Your task to perform on an android device: remove spam from my inbox in the gmail app Image 0: 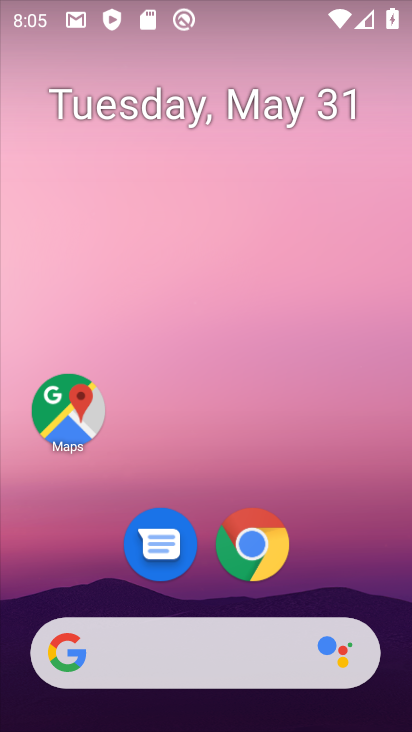
Step 0: drag from (194, 659) to (176, 166)
Your task to perform on an android device: remove spam from my inbox in the gmail app Image 1: 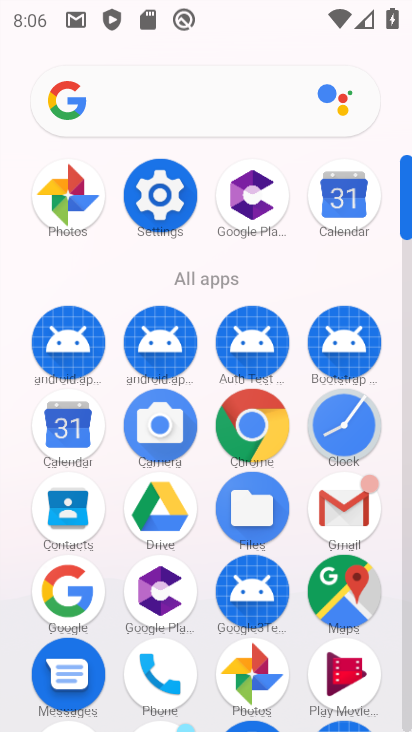
Step 1: click (340, 506)
Your task to perform on an android device: remove spam from my inbox in the gmail app Image 2: 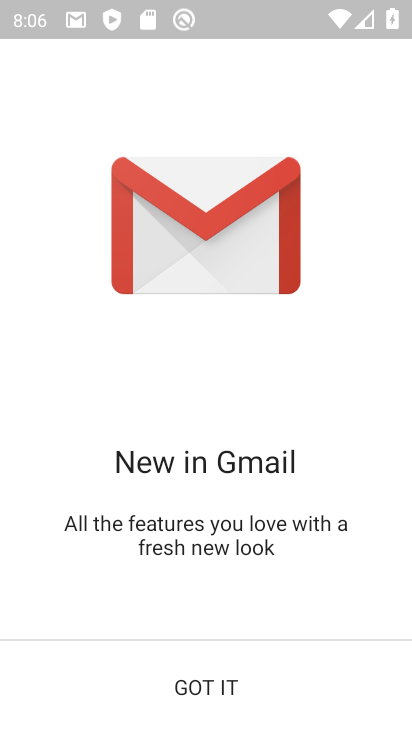
Step 2: click (171, 672)
Your task to perform on an android device: remove spam from my inbox in the gmail app Image 3: 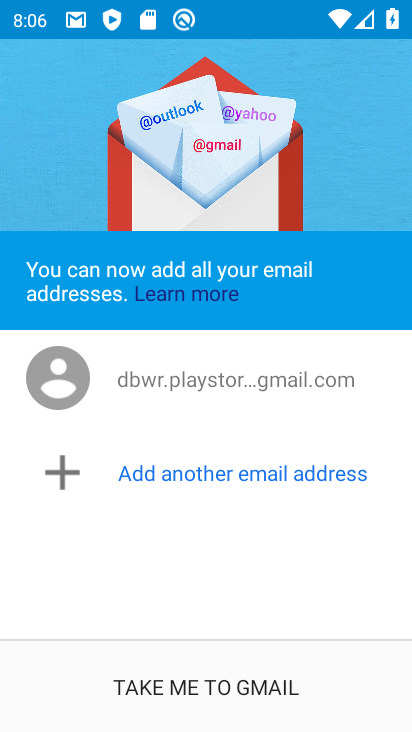
Step 3: click (171, 672)
Your task to perform on an android device: remove spam from my inbox in the gmail app Image 4: 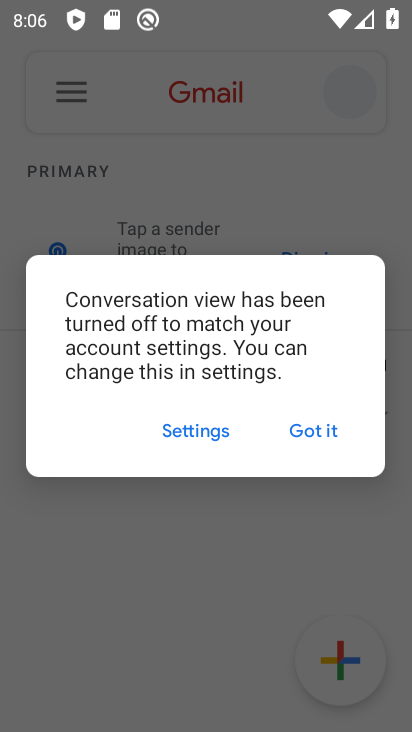
Step 4: click (306, 431)
Your task to perform on an android device: remove spam from my inbox in the gmail app Image 5: 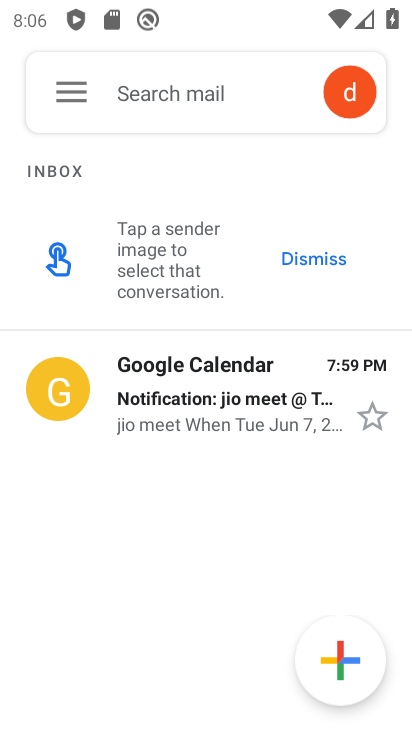
Step 5: click (70, 96)
Your task to perform on an android device: remove spam from my inbox in the gmail app Image 6: 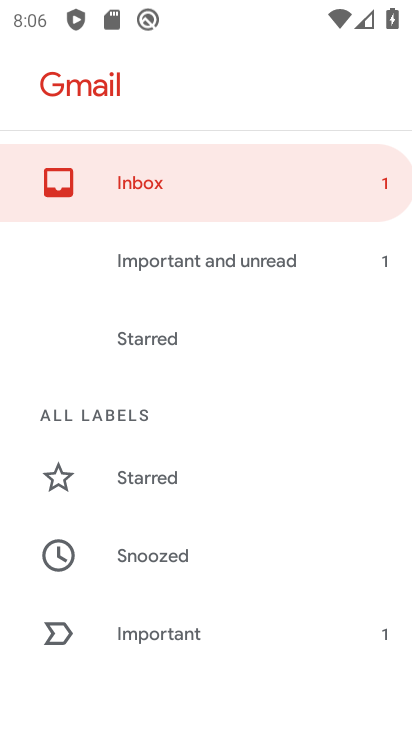
Step 6: drag from (182, 575) to (186, 15)
Your task to perform on an android device: remove spam from my inbox in the gmail app Image 7: 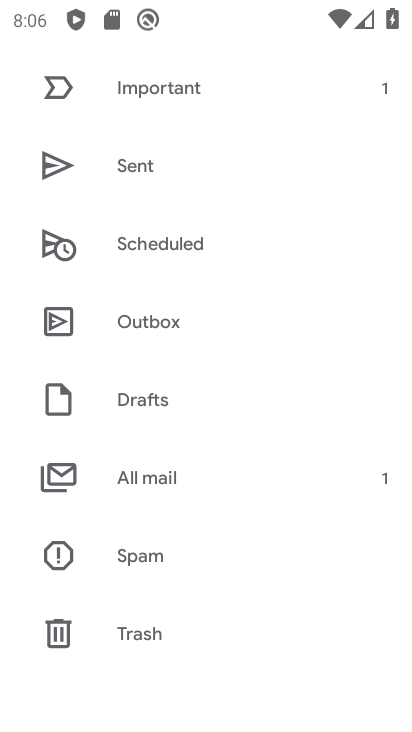
Step 7: click (131, 566)
Your task to perform on an android device: remove spam from my inbox in the gmail app Image 8: 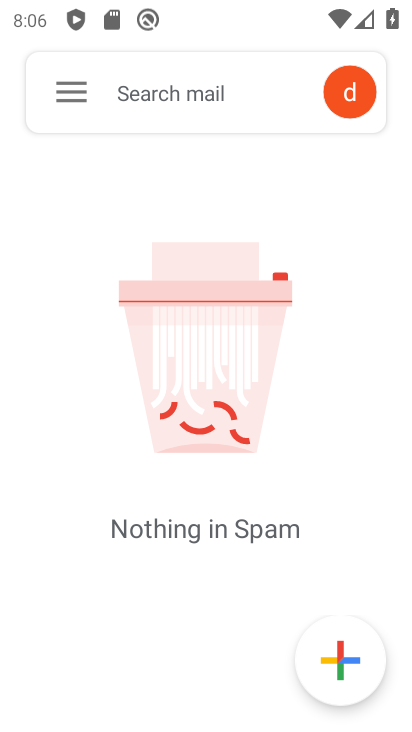
Step 8: task complete